Your task to perform on an android device: Go to accessibility settings Image 0: 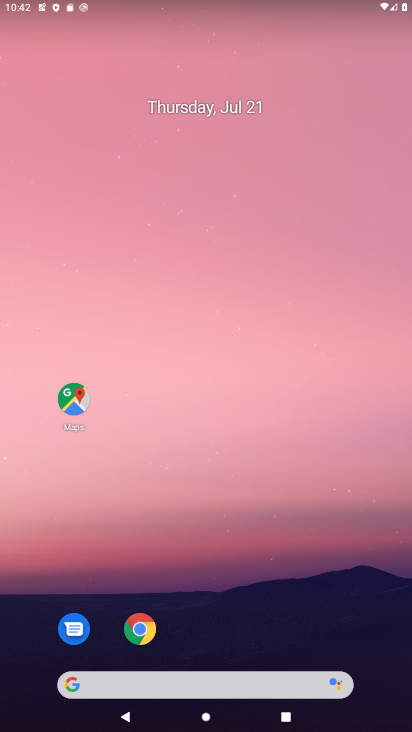
Step 0: press home button
Your task to perform on an android device: Go to accessibility settings Image 1: 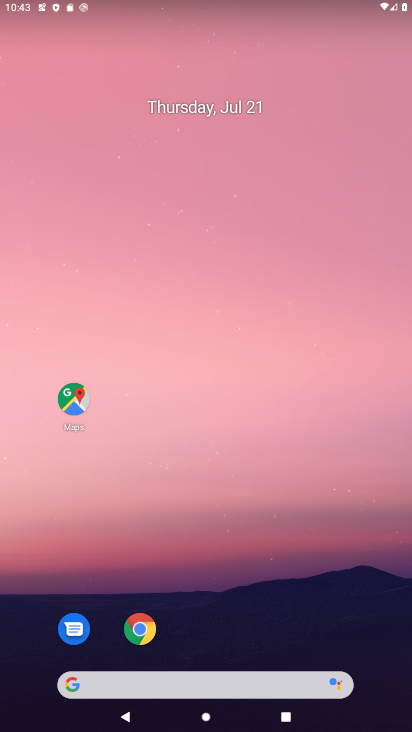
Step 1: drag from (235, 630) to (135, 115)
Your task to perform on an android device: Go to accessibility settings Image 2: 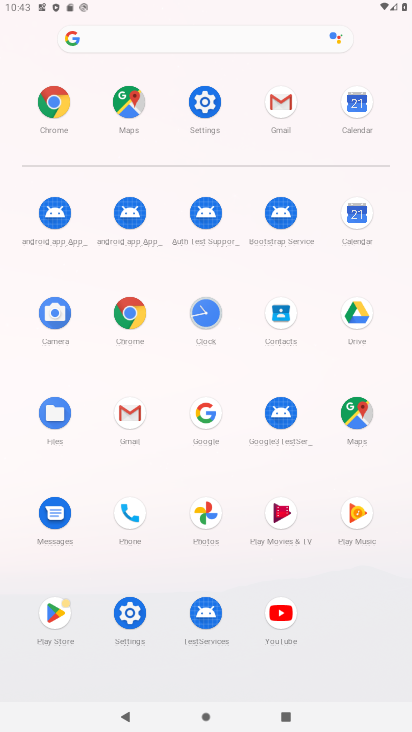
Step 2: click (206, 104)
Your task to perform on an android device: Go to accessibility settings Image 3: 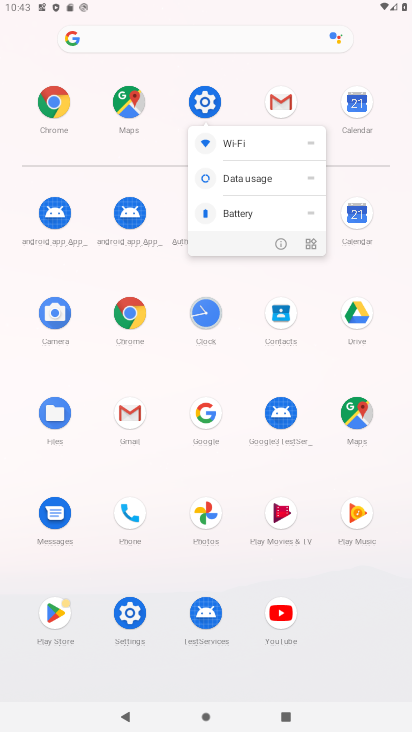
Step 3: click (201, 105)
Your task to perform on an android device: Go to accessibility settings Image 4: 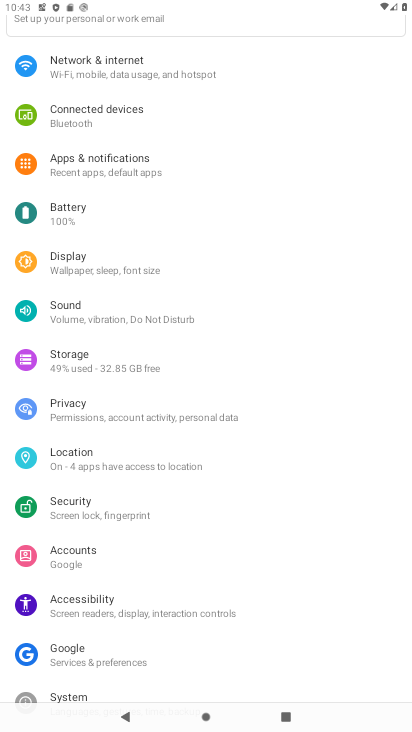
Step 4: click (67, 602)
Your task to perform on an android device: Go to accessibility settings Image 5: 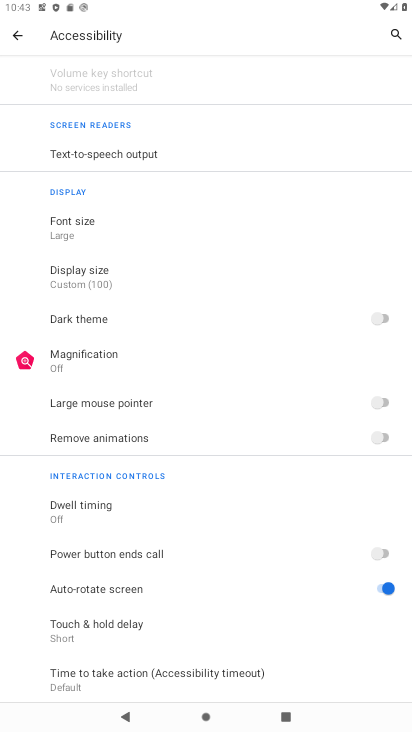
Step 5: task complete